Your task to perform on an android device: Open calendar and show me the fourth week of next month Image 0: 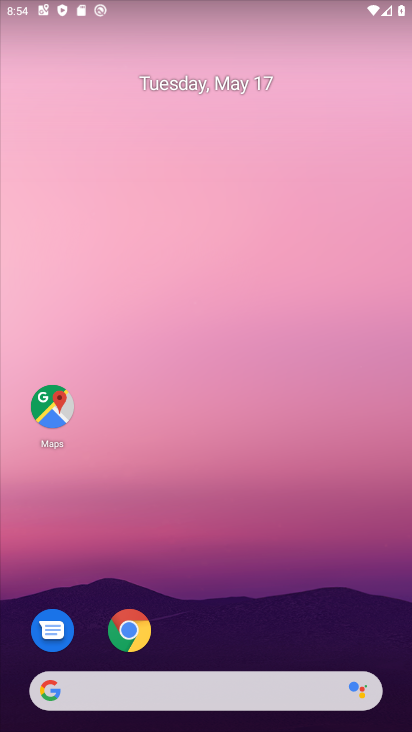
Step 0: drag from (197, 572) to (236, 126)
Your task to perform on an android device: Open calendar and show me the fourth week of next month Image 1: 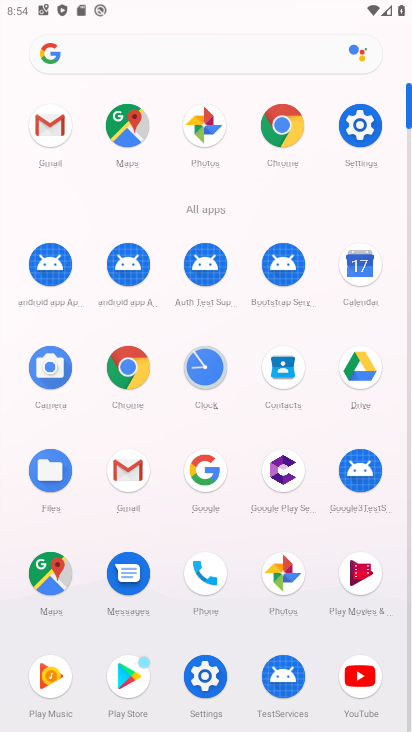
Step 1: click (364, 271)
Your task to perform on an android device: Open calendar and show me the fourth week of next month Image 2: 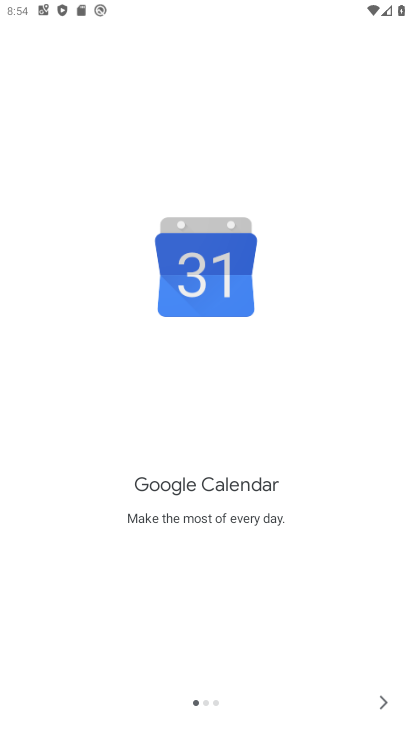
Step 2: click (393, 701)
Your task to perform on an android device: Open calendar and show me the fourth week of next month Image 3: 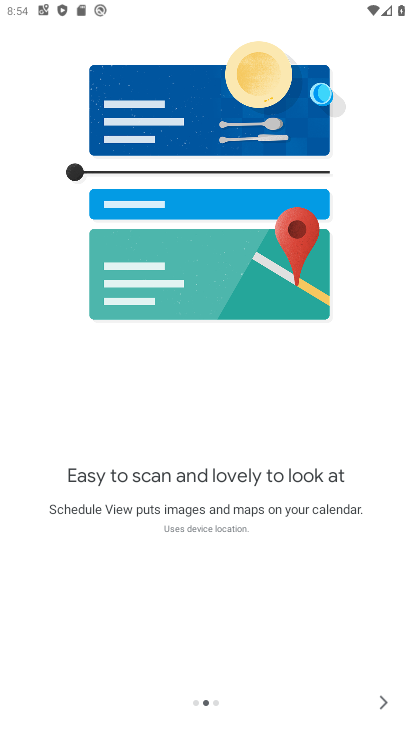
Step 3: click (387, 699)
Your task to perform on an android device: Open calendar and show me the fourth week of next month Image 4: 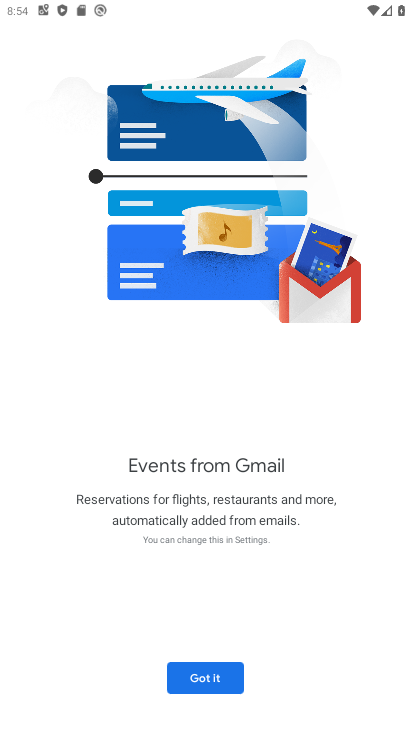
Step 4: click (201, 686)
Your task to perform on an android device: Open calendar and show me the fourth week of next month Image 5: 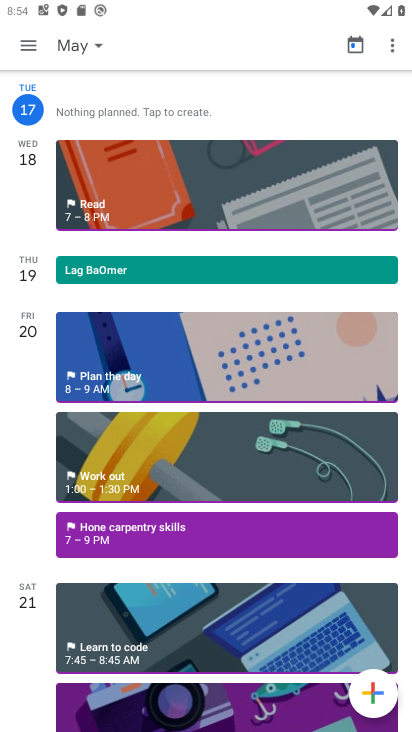
Step 5: click (75, 51)
Your task to perform on an android device: Open calendar and show me the fourth week of next month Image 6: 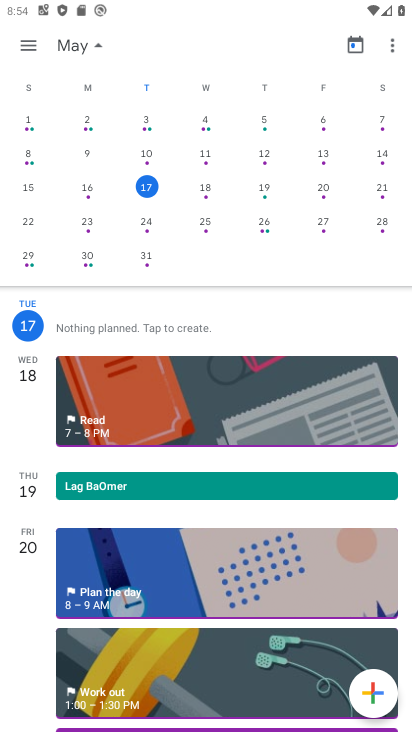
Step 6: drag from (287, 185) to (149, 123)
Your task to perform on an android device: Open calendar and show me the fourth week of next month Image 7: 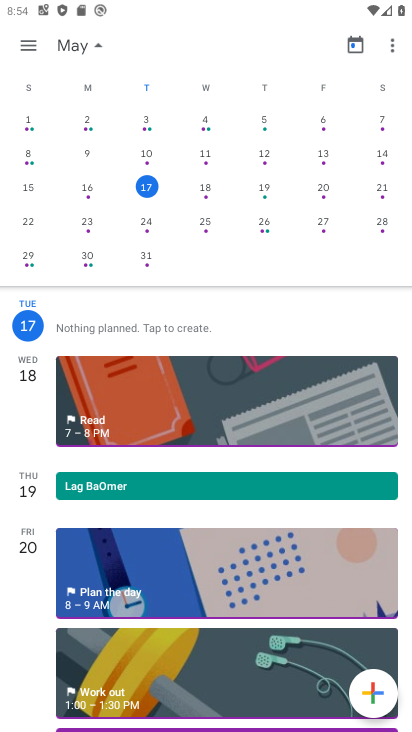
Step 7: drag from (364, 193) to (25, 182)
Your task to perform on an android device: Open calendar and show me the fourth week of next month Image 8: 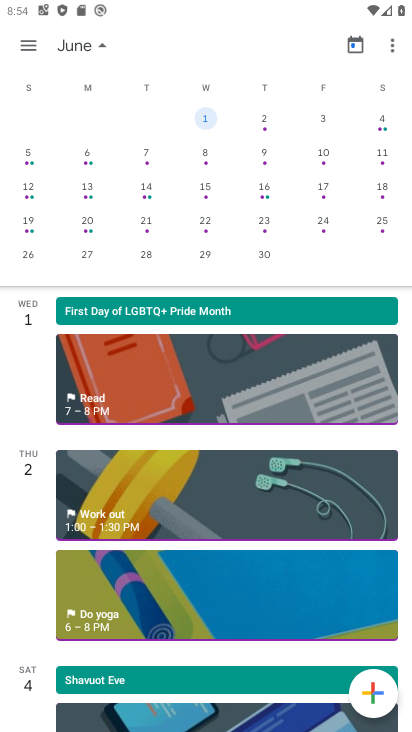
Step 8: click (26, 220)
Your task to perform on an android device: Open calendar and show me the fourth week of next month Image 9: 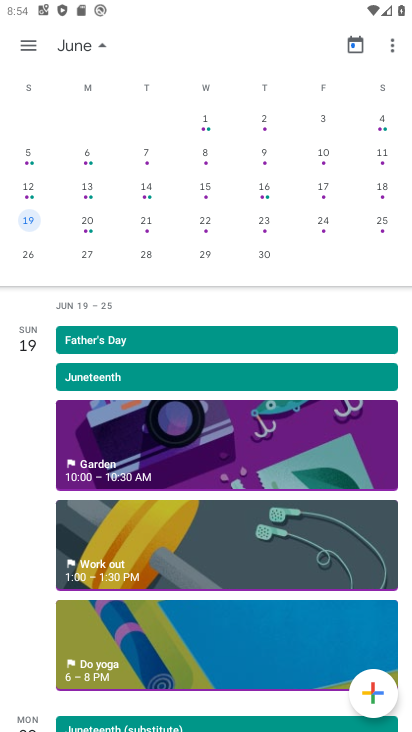
Step 9: click (29, 40)
Your task to perform on an android device: Open calendar and show me the fourth week of next month Image 10: 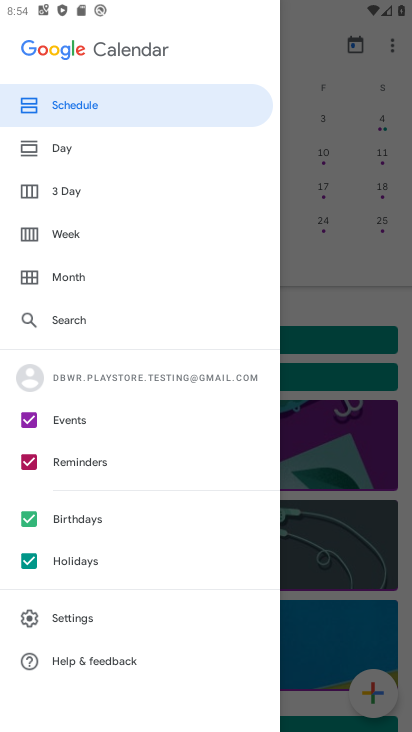
Step 10: click (55, 250)
Your task to perform on an android device: Open calendar and show me the fourth week of next month Image 11: 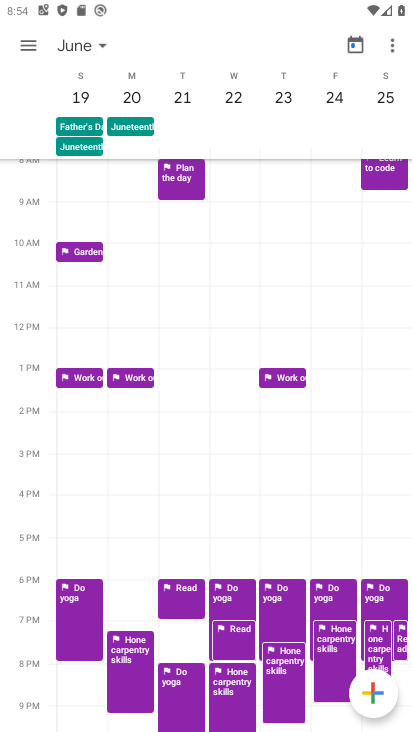
Step 11: task complete